Your task to perform on an android device: check the backup settings in the google photos Image 0: 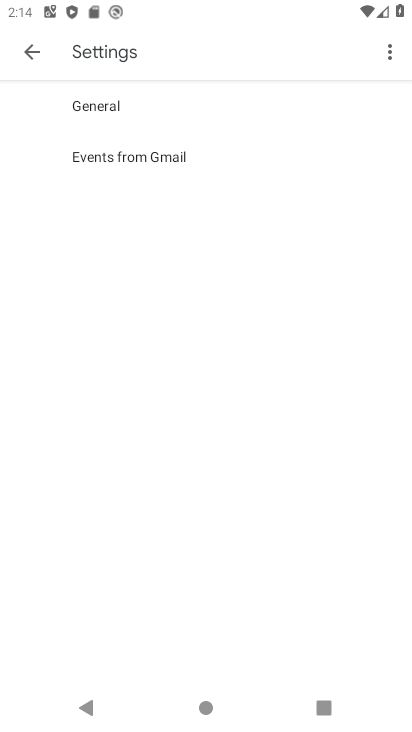
Step 0: press home button
Your task to perform on an android device: check the backup settings in the google photos Image 1: 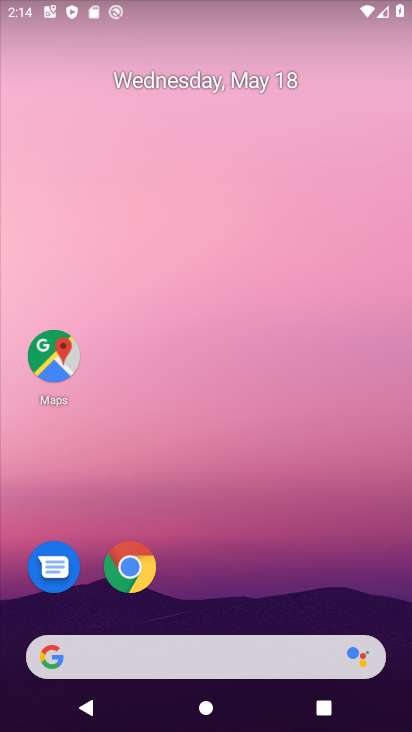
Step 1: drag from (271, 490) to (256, 188)
Your task to perform on an android device: check the backup settings in the google photos Image 2: 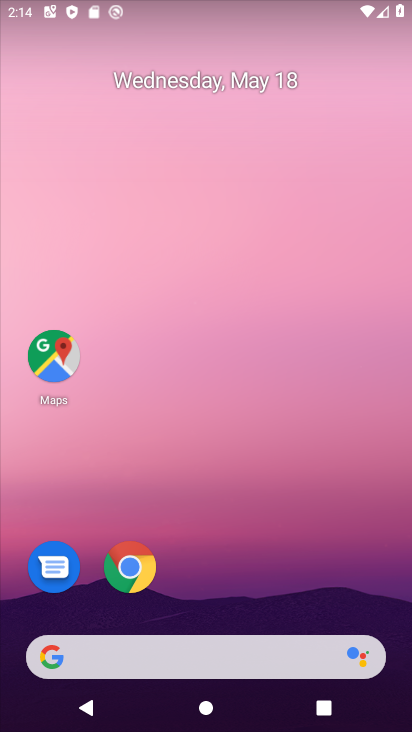
Step 2: drag from (249, 553) to (230, 171)
Your task to perform on an android device: check the backup settings in the google photos Image 3: 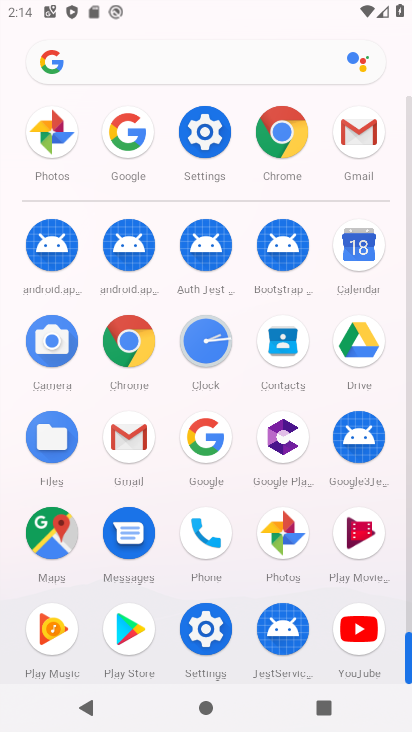
Step 3: click (268, 536)
Your task to perform on an android device: check the backup settings in the google photos Image 4: 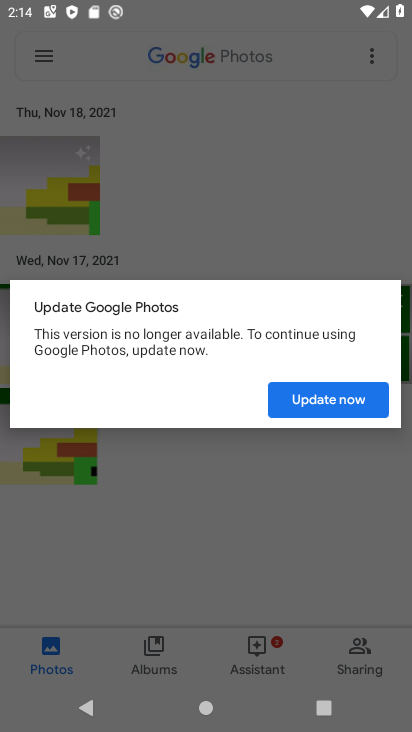
Step 4: click (337, 385)
Your task to perform on an android device: check the backup settings in the google photos Image 5: 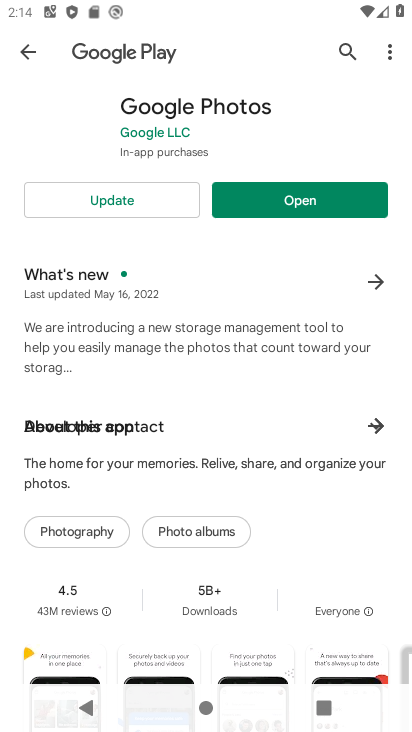
Step 5: press back button
Your task to perform on an android device: check the backup settings in the google photos Image 6: 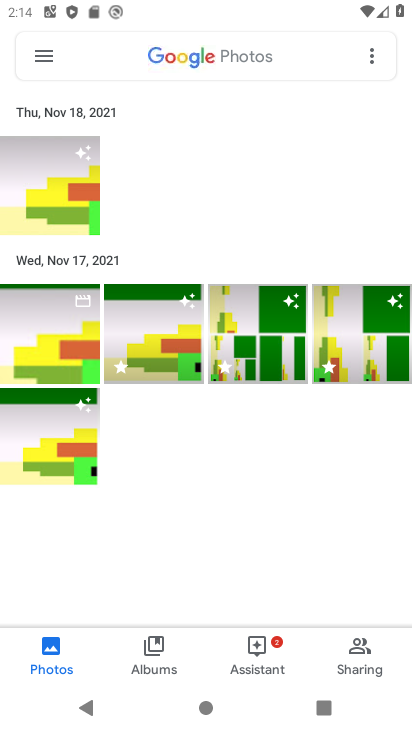
Step 6: click (29, 51)
Your task to perform on an android device: check the backup settings in the google photos Image 7: 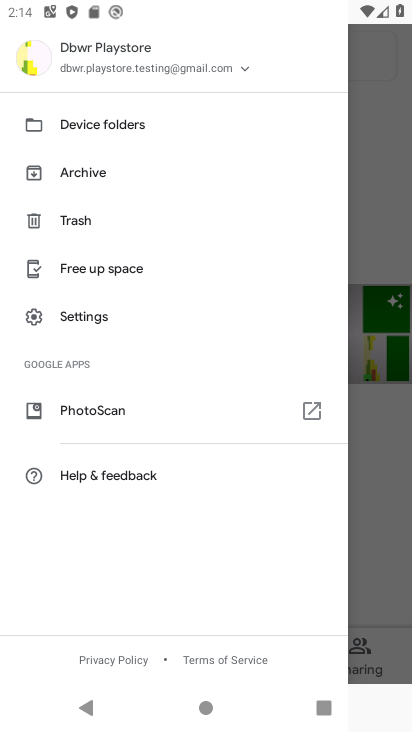
Step 7: click (110, 317)
Your task to perform on an android device: check the backup settings in the google photos Image 8: 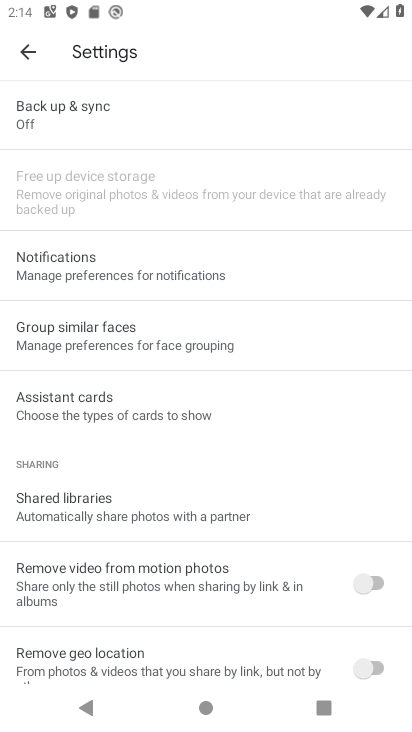
Step 8: click (132, 104)
Your task to perform on an android device: check the backup settings in the google photos Image 9: 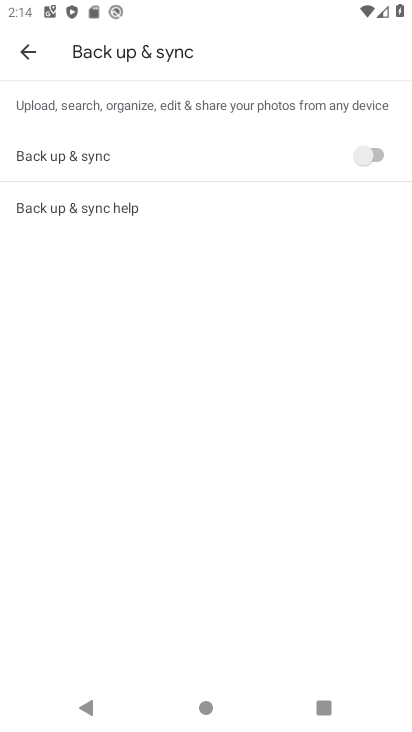
Step 9: task complete